Your task to perform on an android device: Open notification settings Image 0: 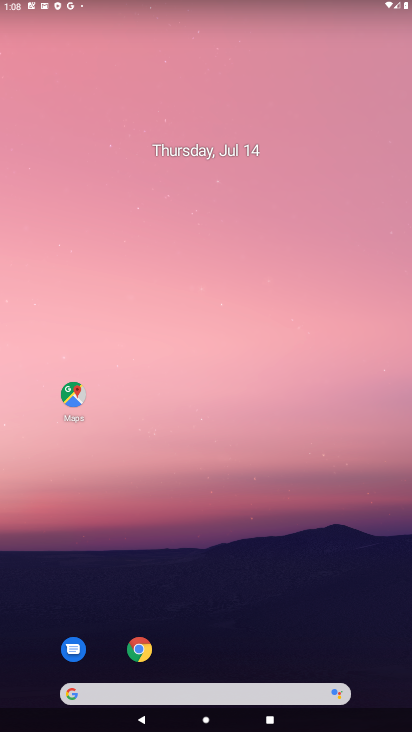
Step 0: drag from (366, 677) to (185, 86)
Your task to perform on an android device: Open notification settings Image 1: 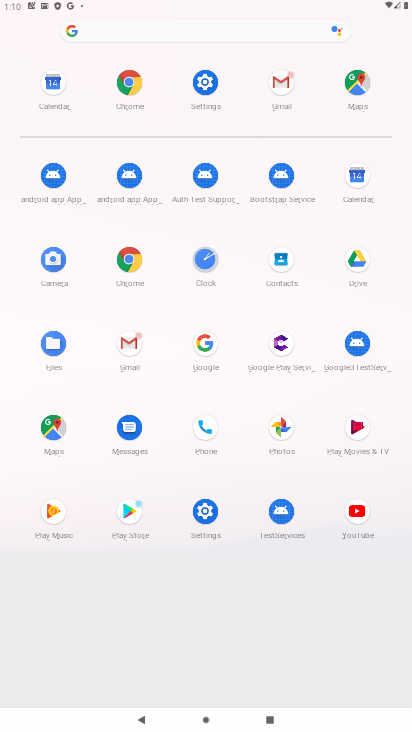
Step 1: click (211, 510)
Your task to perform on an android device: Open notification settings Image 2: 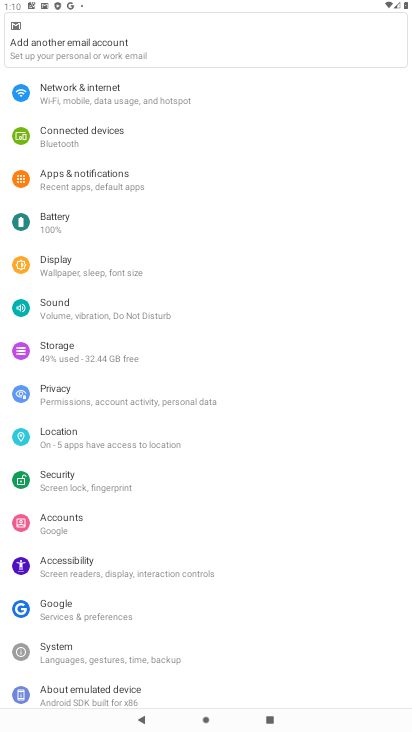
Step 2: click (112, 179)
Your task to perform on an android device: Open notification settings Image 3: 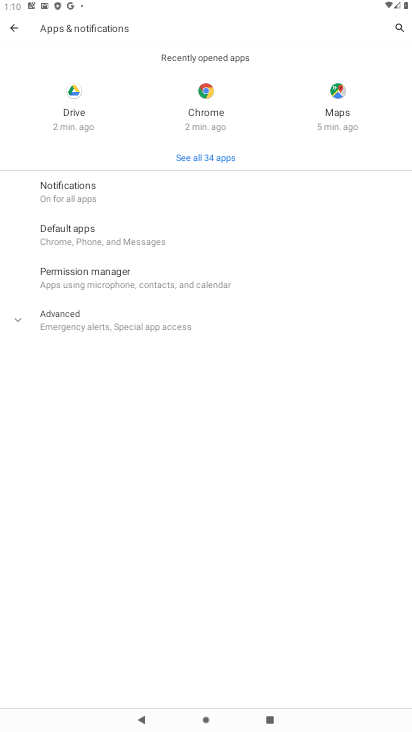
Step 3: click (96, 183)
Your task to perform on an android device: Open notification settings Image 4: 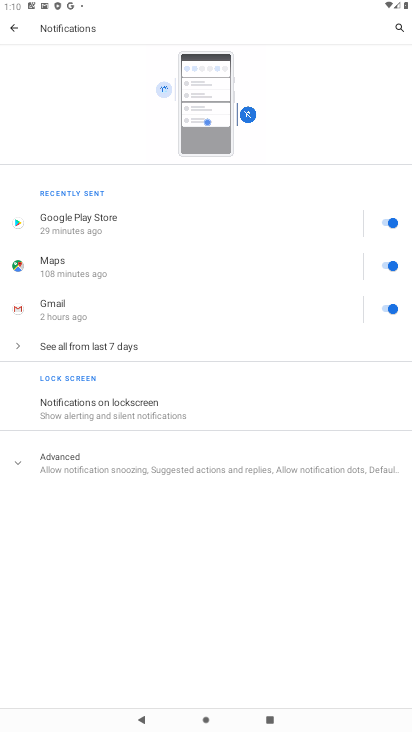
Step 4: task complete